Your task to perform on an android device: Set the phone to "Do not disturb". Image 0: 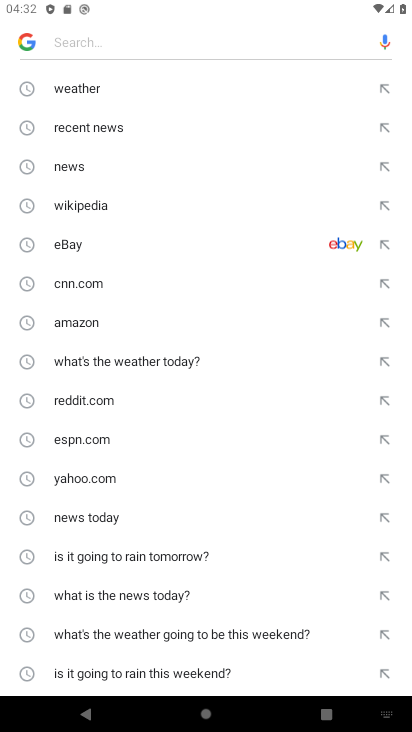
Step 0: press back button
Your task to perform on an android device: Set the phone to "Do not disturb". Image 1: 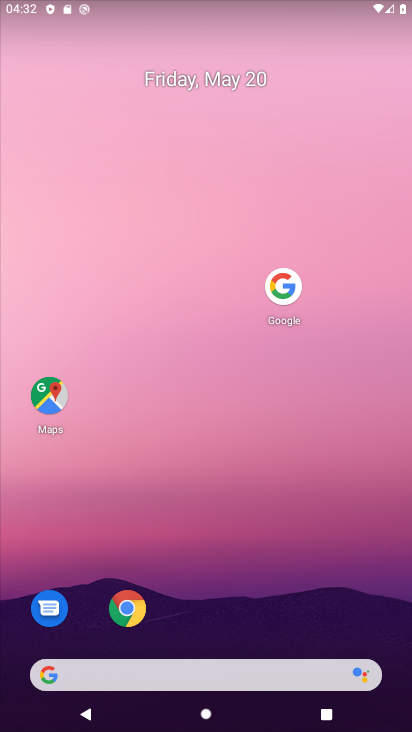
Step 1: drag from (225, 8) to (235, 531)
Your task to perform on an android device: Set the phone to "Do not disturb". Image 2: 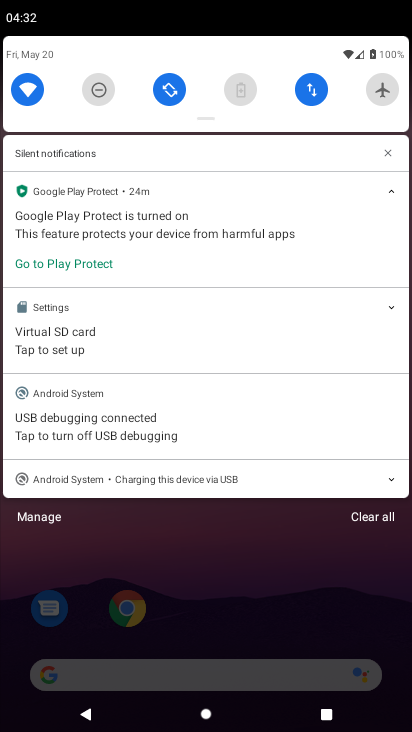
Step 2: click (94, 91)
Your task to perform on an android device: Set the phone to "Do not disturb". Image 3: 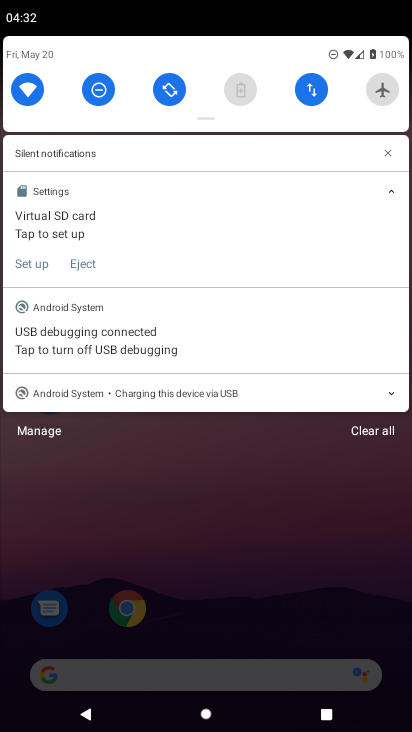
Step 3: task complete